Your task to perform on an android device: turn off javascript in the chrome app Image 0: 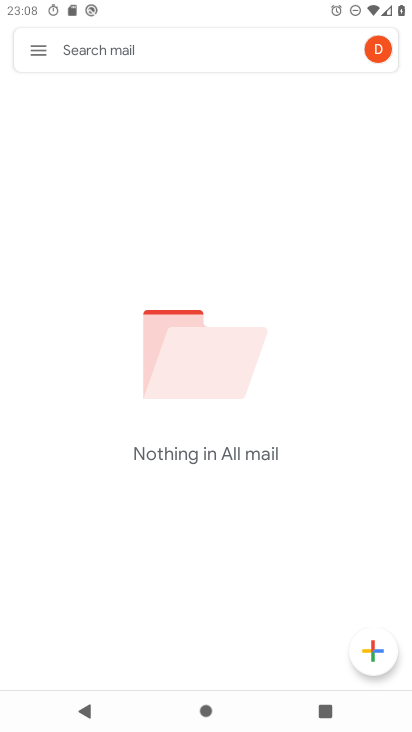
Step 0: press home button
Your task to perform on an android device: turn off javascript in the chrome app Image 1: 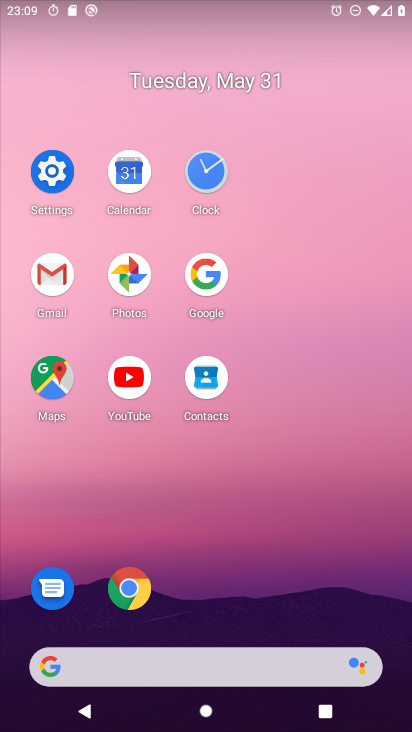
Step 1: click (134, 605)
Your task to perform on an android device: turn off javascript in the chrome app Image 2: 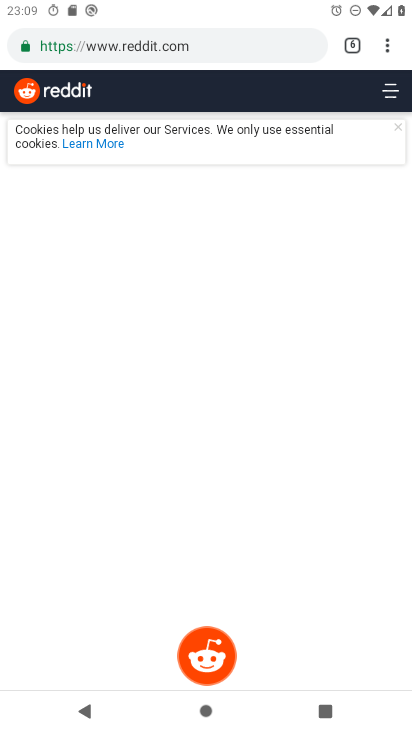
Step 2: click (392, 51)
Your task to perform on an android device: turn off javascript in the chrome app Image 3: 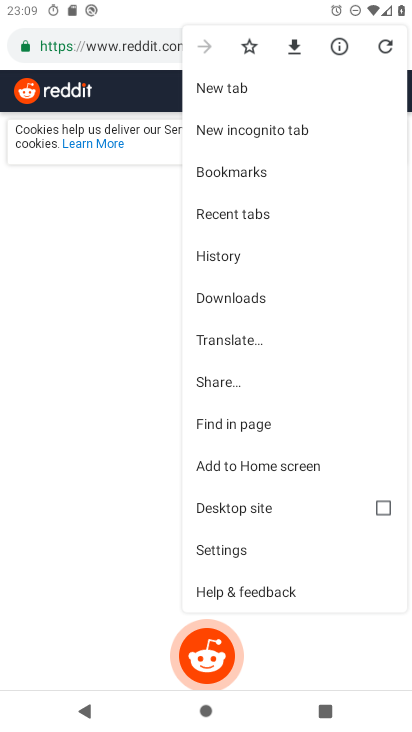
Step 3: click (246, 548)
Your task to perform on an android device: turn off javascript in the chrome app Image 4: 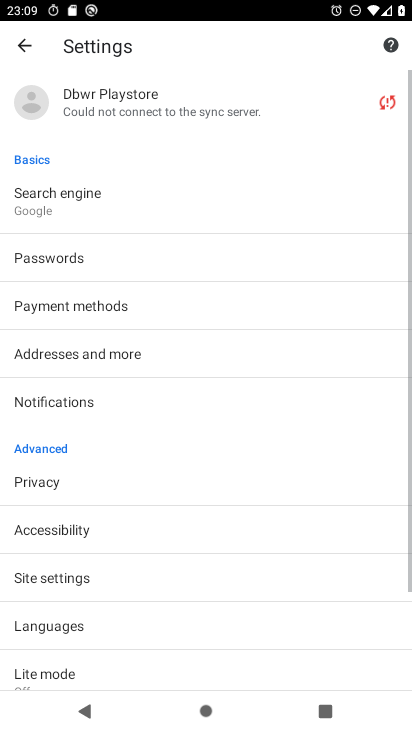
Step 4: drag from (140, 549) to (189, 175)
Your task to perform on an android device: turn off javascript in the chrome app Image 5: 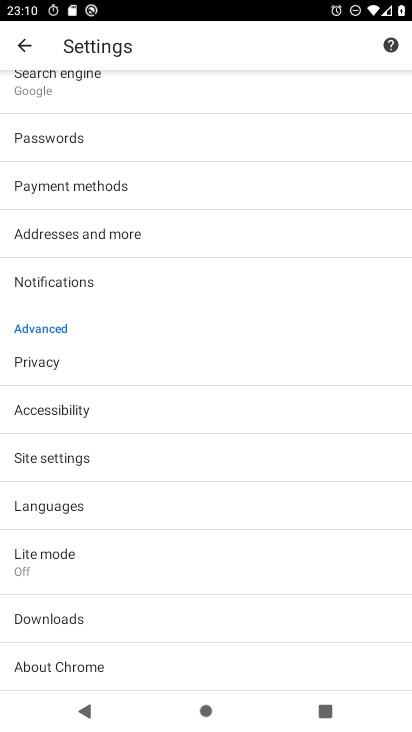
Step 5: click (151, 471)
Your task to perform on an android device: turn off javascript in the chrome app Image 6: 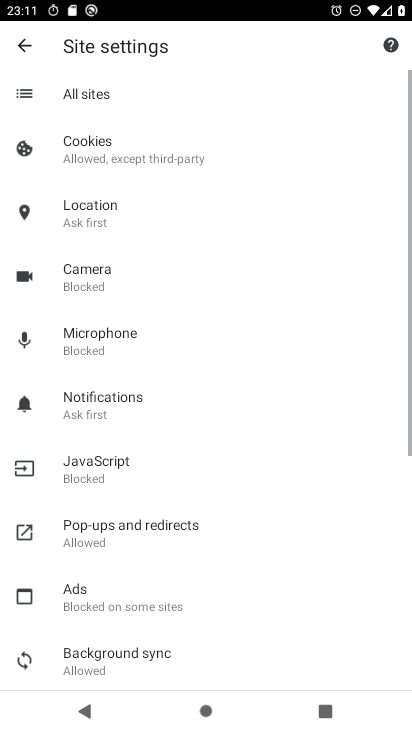
Step 6: click (160, 463)
Your task to perform on an android device: turn off javascript in the chrome app Image 7: 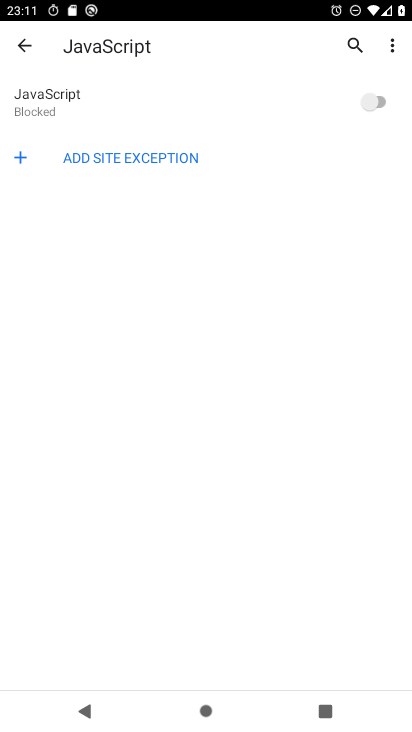
Step 7: task complete